Your task to perform on an android device: open chrome privacy settings Image 0: 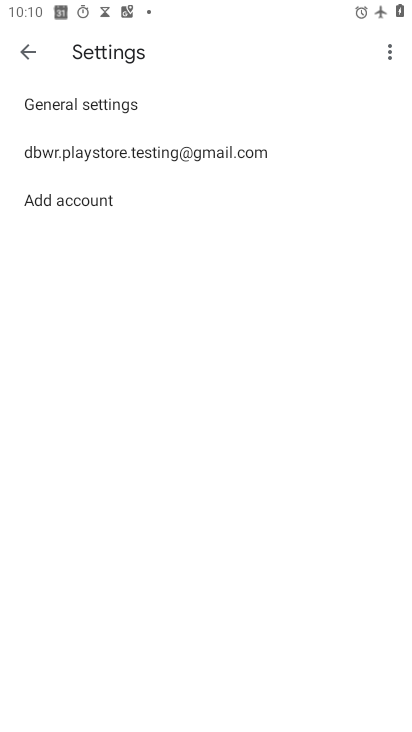
Step 0: press home button
Your task to perform on an android device: open chrome privacy settings Image 1: 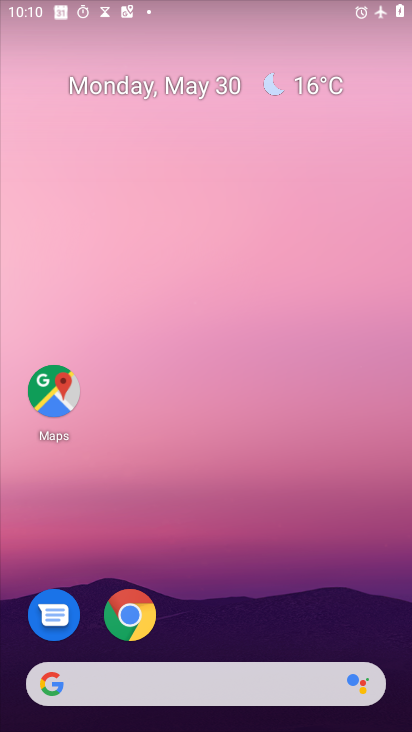
Step 1: drag from (279, 613) to (301, 11)
Your task to perform on an android device: open chrome privacy settings Image 2: 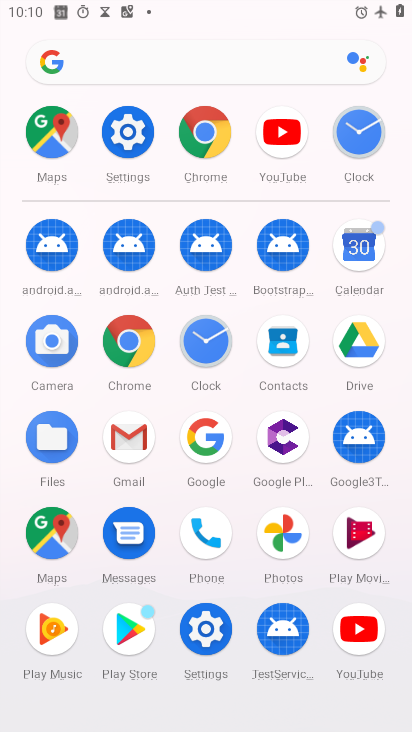
Step 2: click (209, 142)
Your task to perform on an android device: open chrome privacy settings Image 3: 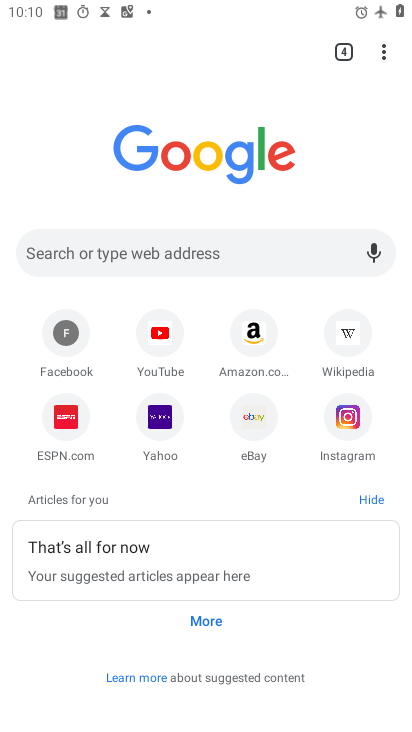
Step 3: drag from (390, 65) to (229, 447)
Your task to perform on an android device: open chrome privacy settings Image 4: 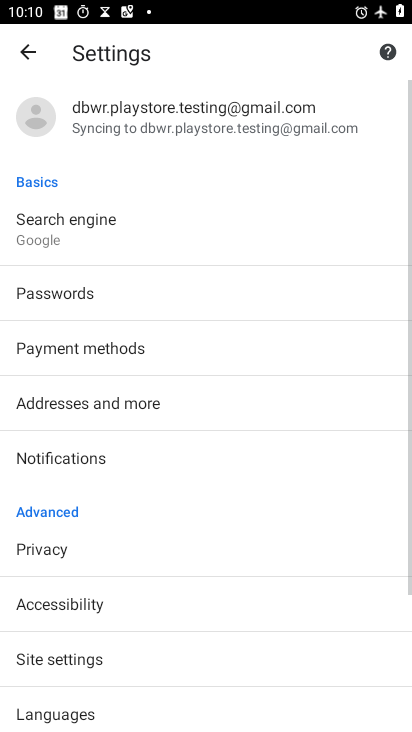
Step 4: drag from (154, 552) to (190, 195)
Your task to perform on an android device: open chrome privacy settings Image 5: 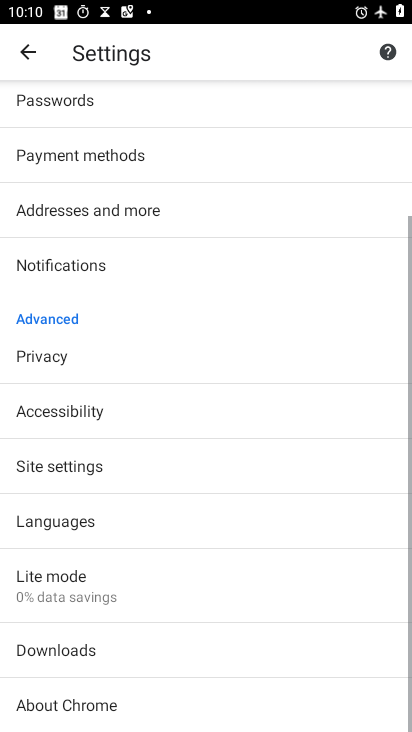
Step 5: click (38, 355)
Your task to perform on an android device: open chrome privacy settings Image 6: 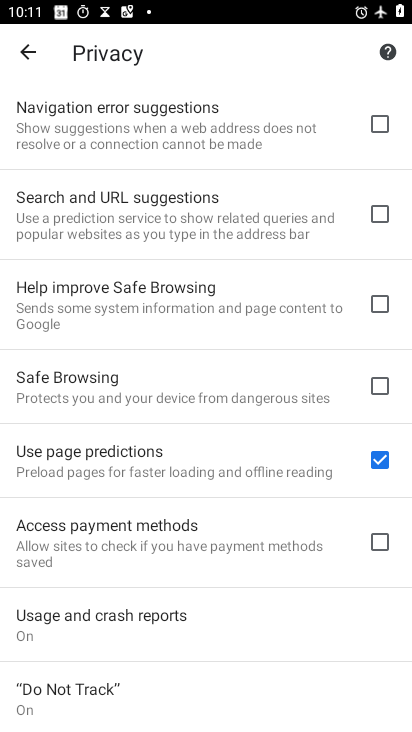
Step 6: task complete